Your task to perform on an android device: Open location settings Image 0: 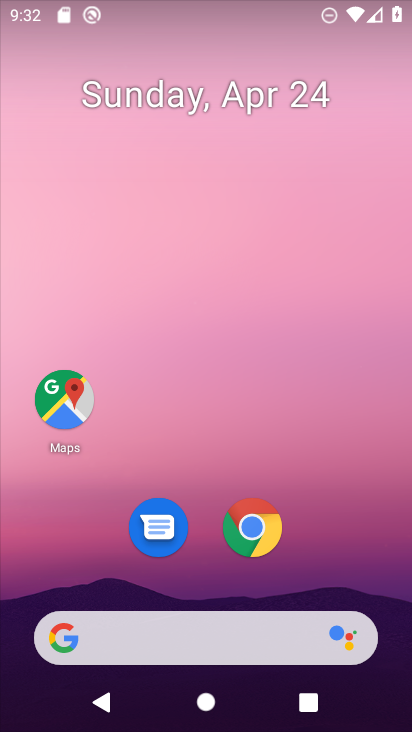
Step 0: drag from (387, 611) to (252, 101)
Your task to perform on an android device: Open location settings Image 1: 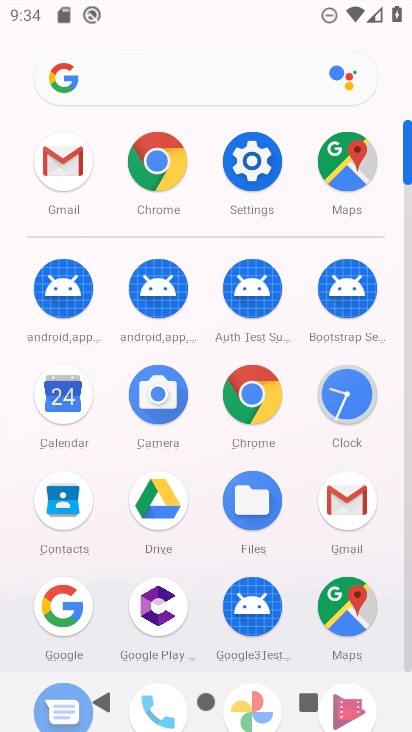
Step 1: click (238, 172)
Your task to perform on an android device: Open location settings Image 2: 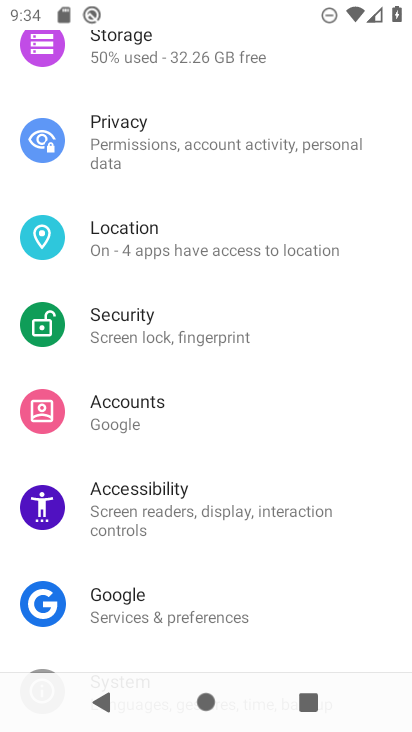
Step 2: click (176, 246)
Your task to perform on an android device: Open location settings Image 3: 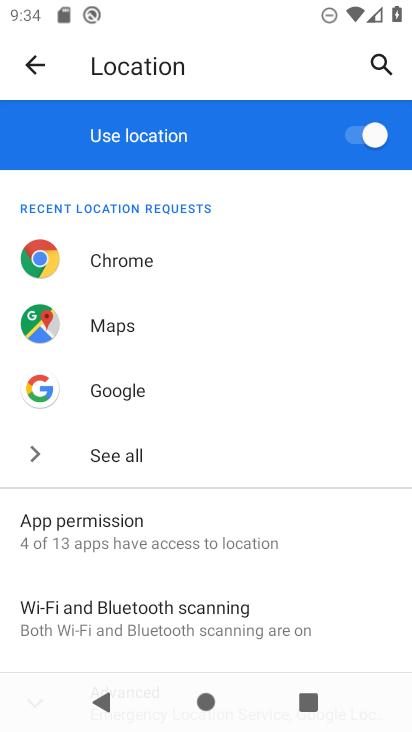
Step 3: drag from (195, 583) to (247, 235)
Your task to perform on an android device: Open location settings Image 4: 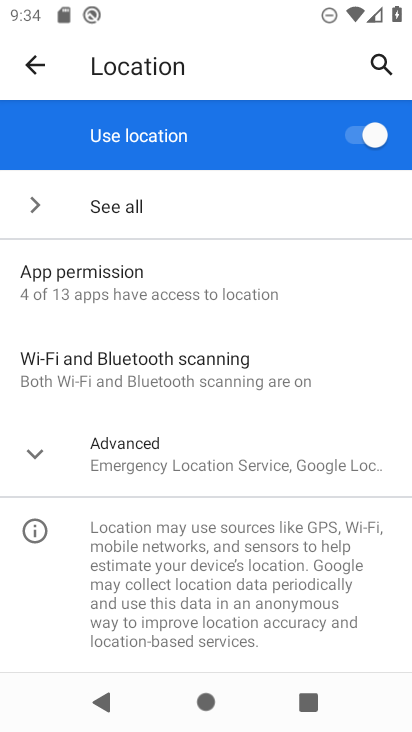
Step 4: drag from (233, 253) to (280, 624)
Your task to perform on an android device: Open location settings Image 5: 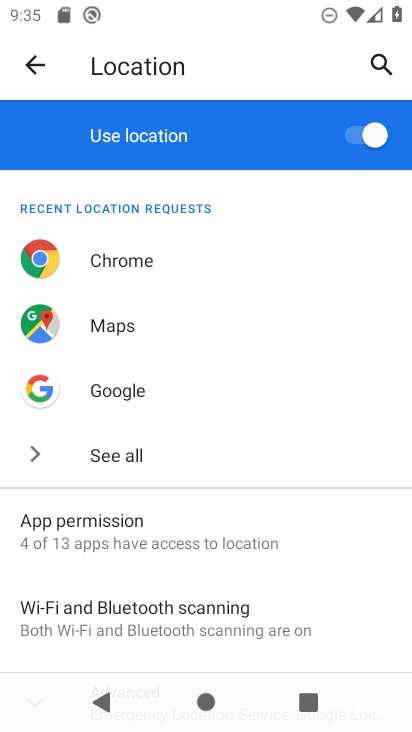
Step 5: drag from (189, 593) to (243, 334)
Your task to perform on an android device: Open location settings Image 6: 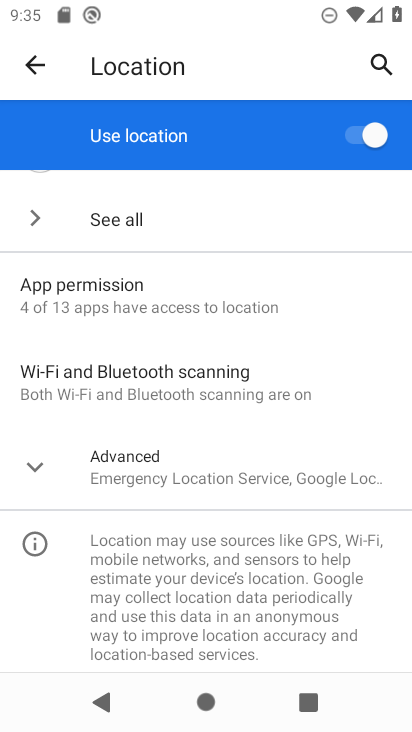
Step 6: click (23, 468)
Your task to perform on an android device: Open location settings Image 7: 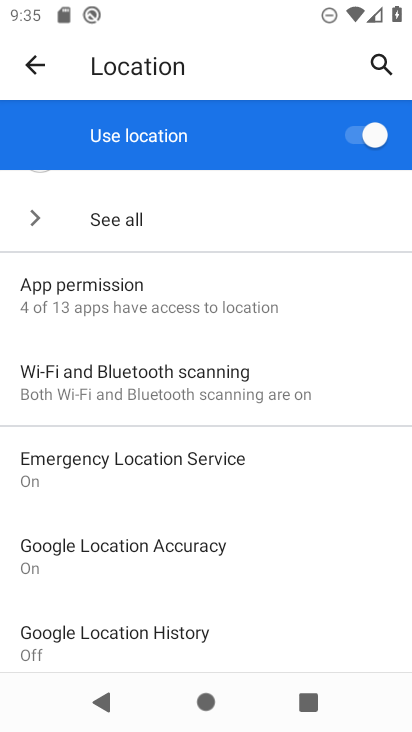
Step 7: task complete